Your task to perform on an android device: What is the speed of a rocket? Image 0: 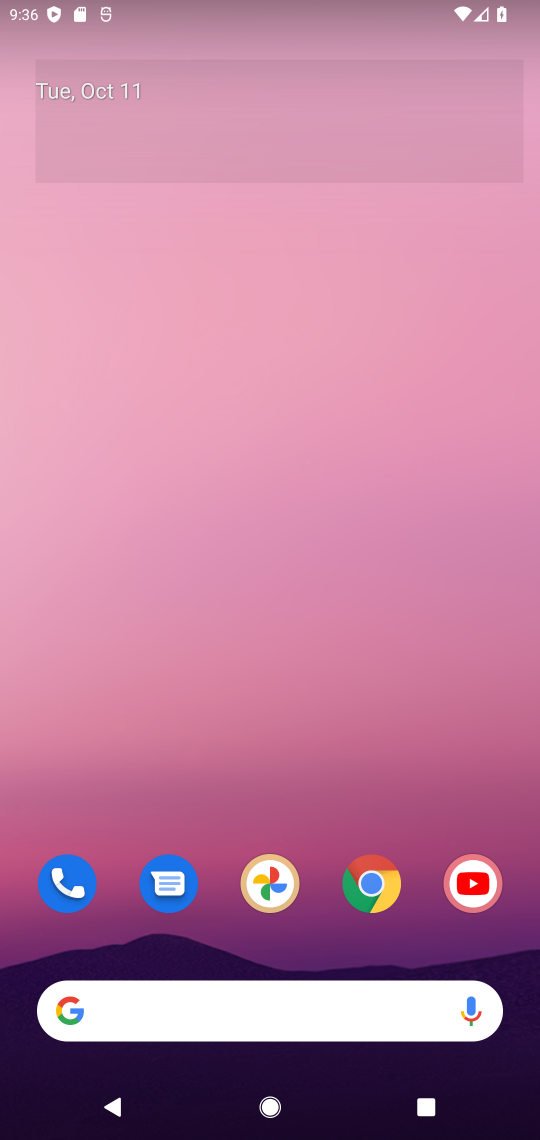
Step 0: task complete